Your task to perform on an android device: turn on showing notifications on the lock screen Image 0: 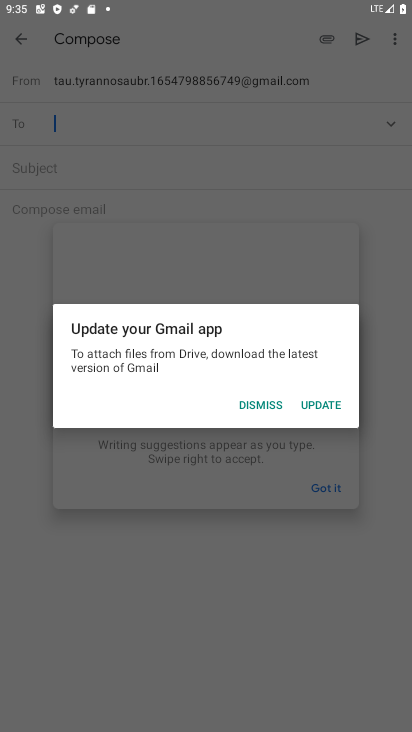
Step 0: press home button
Your task to perform on an android device: turn on showing notifications on the lock screen Image 1: 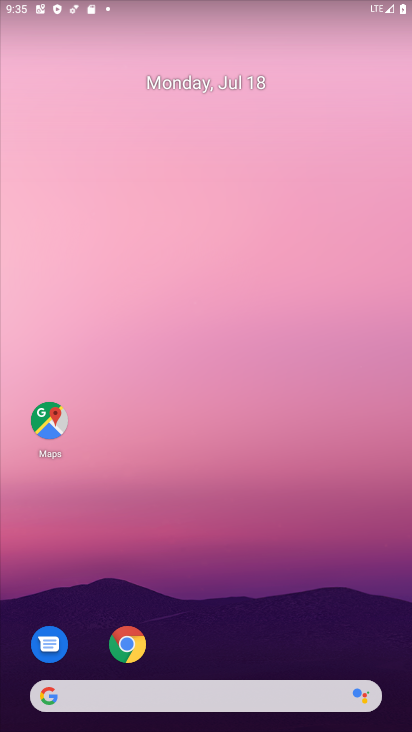
Step 1: drag from (179, 647) to (130, 61)
Your task to perform on an android device: turn on showing notifications on the lock screen Image 2: 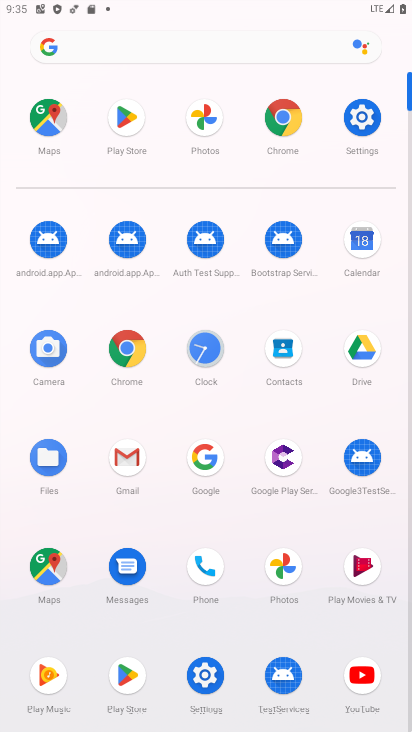
Step 2: click (355, 126)
Your task to perform on an android device: turn on showing notifications on the lock screen Image 3: 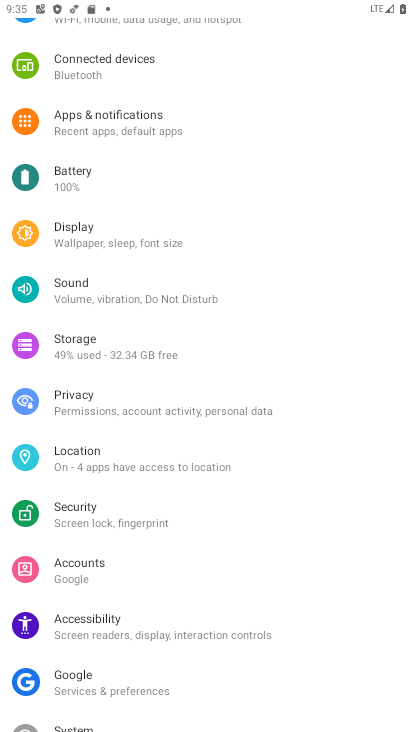
Step 3: click (104, 121)
Your task to perform on an android device: turn on showing notifications on the lock screen Image 4: 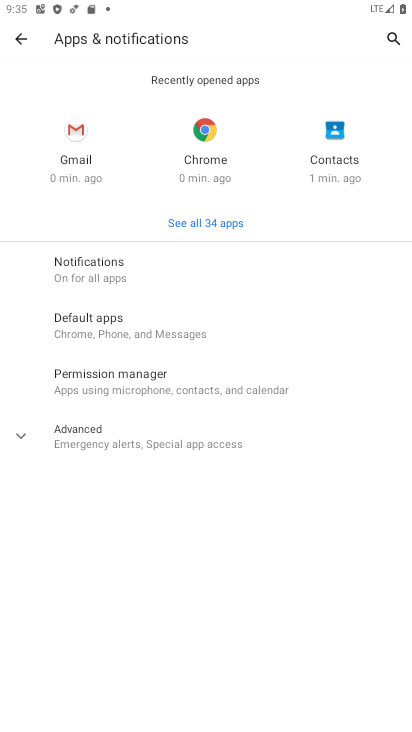
Step 4: click (115, 432)
Your task to perform on an android device: turn on showing notifications on the lock screen Image 5: 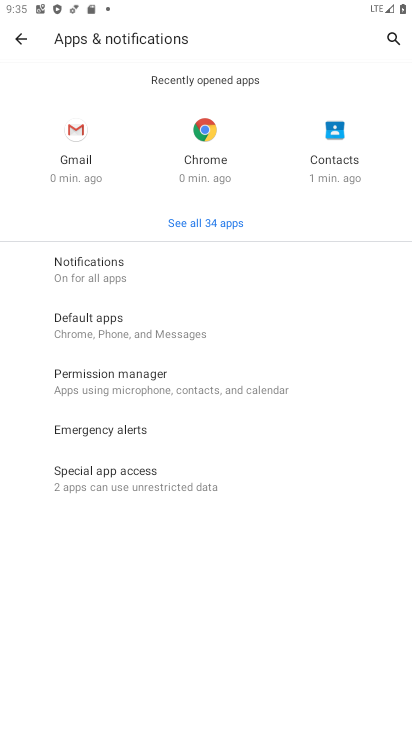
Step 5: click (79, 270)
Your task to perform on an android device: turn on showing notifications on the lock screen Image 6: 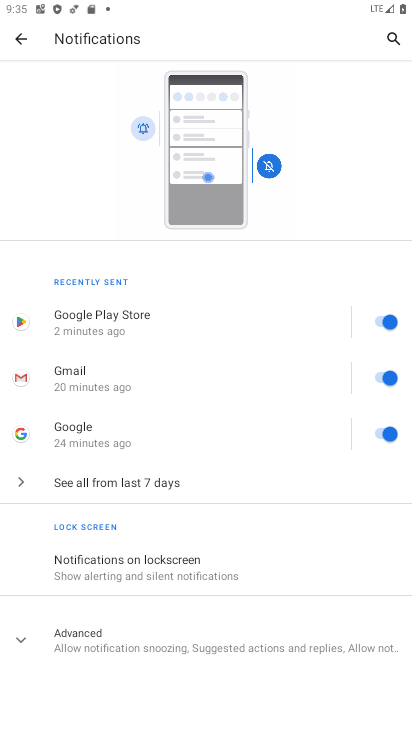
Step 6: click (150, 548)
Your task to perform on an android device: turn on showing notifications on the lock screen Image 7: 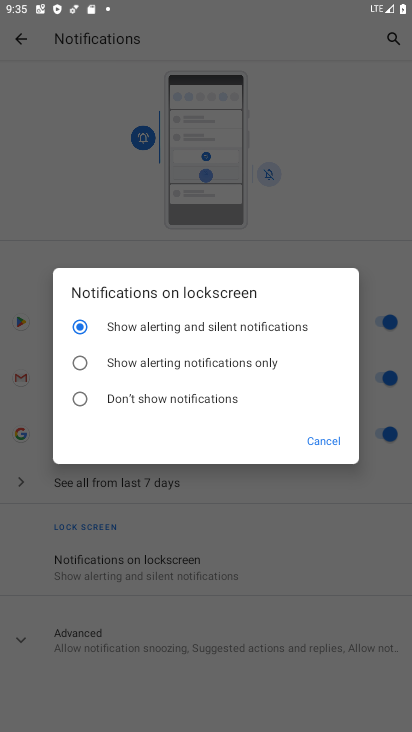
Step 7: click (88, 328)
Your task to perform on an android device: turn on showing notifications on the lock screen Image 8: 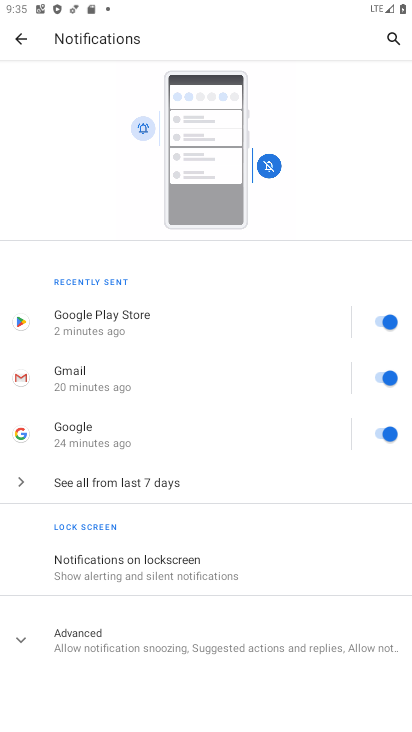
Step 8: task complete